Your task to perform on an android device: change alarm snooze length Image 0: 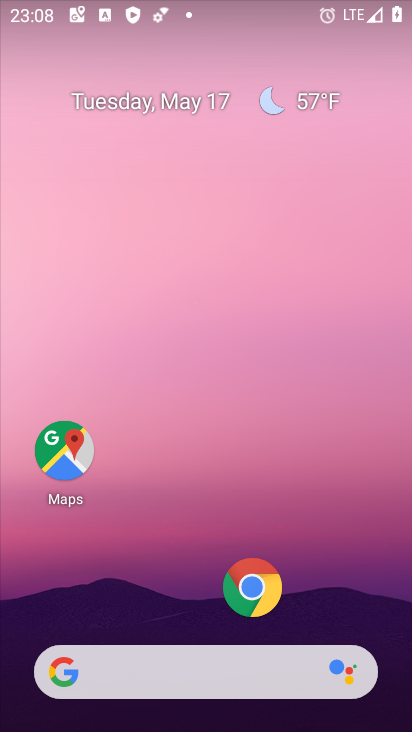
Step 0: drag from (85, 547) to (411, 80)
Your task to perform on an android device: change alarm snooze length Image 1: 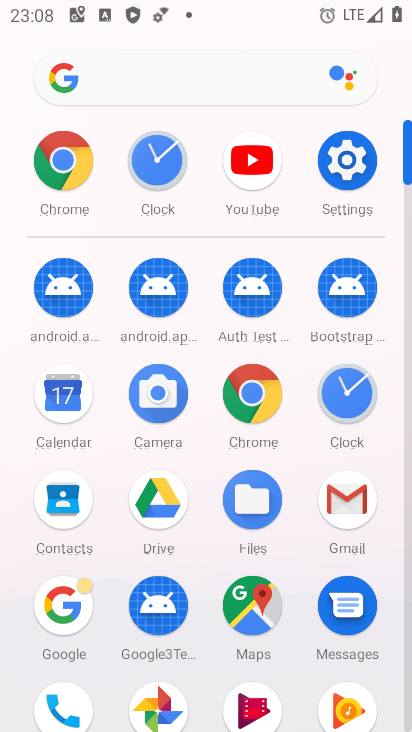
Step 1: click (349, 382)
Your task to perform on an android device: change alarm snooze length Image 2: 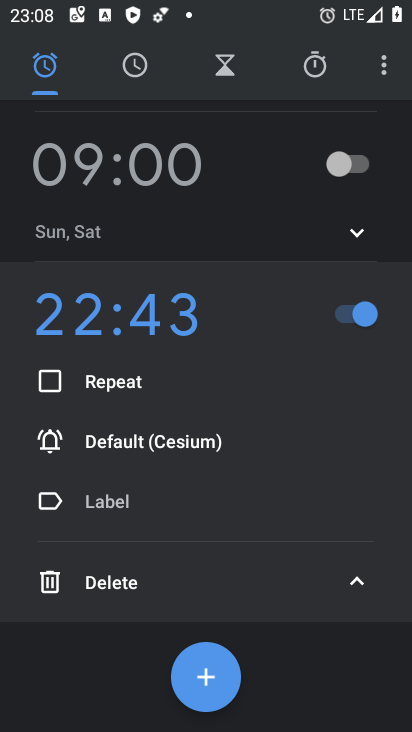
Step 2: click (385, 73)
Your task to perform on an android device: change alarm snooze length Image 3: 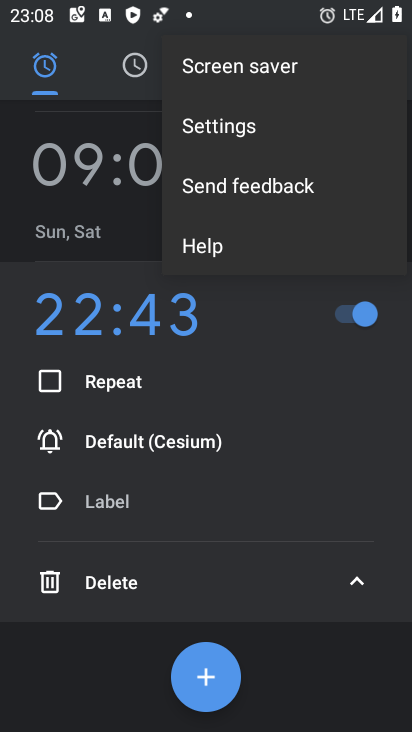
Step 3: click (269, 131)
Your task to perform on an android device: change alarm snooze length Image 4: 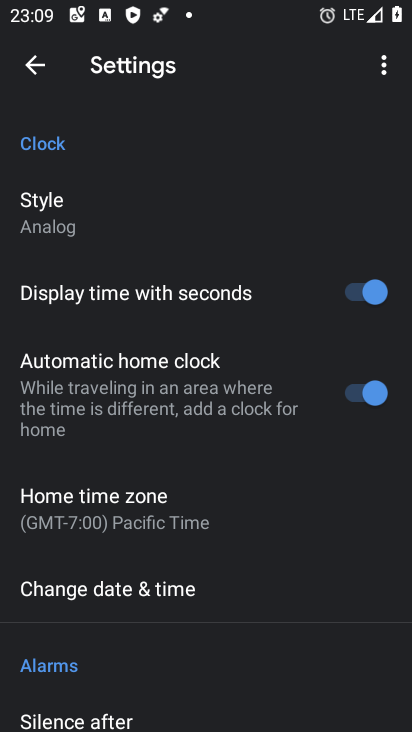
Step 4: drag from (163, 648) to (204, 170)
Your task to perform on an android device: change alarm snooze length Image 5: 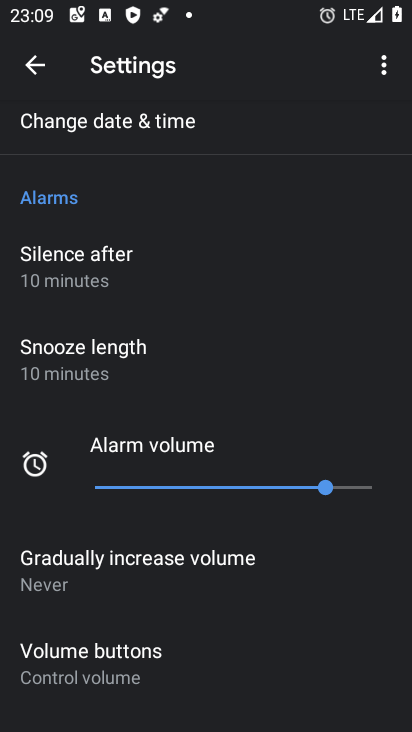
Step 5: click (99, 362)
Your task to perform on an android device: change alarm snooze length Image 6: 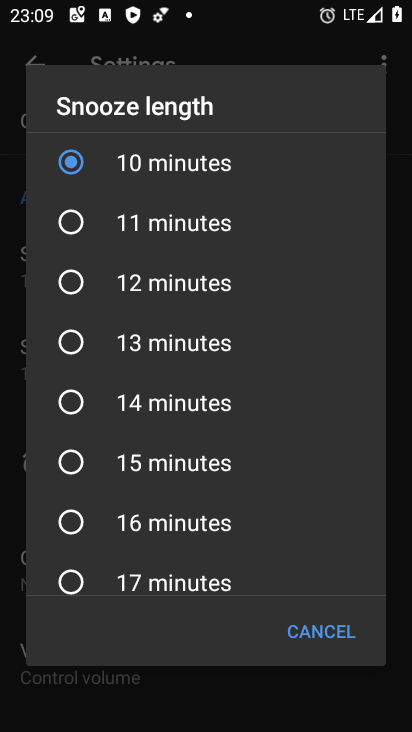
Step 6: click (164, 217)
Your task to perform on an android device: change alarm snooze length Image 7: 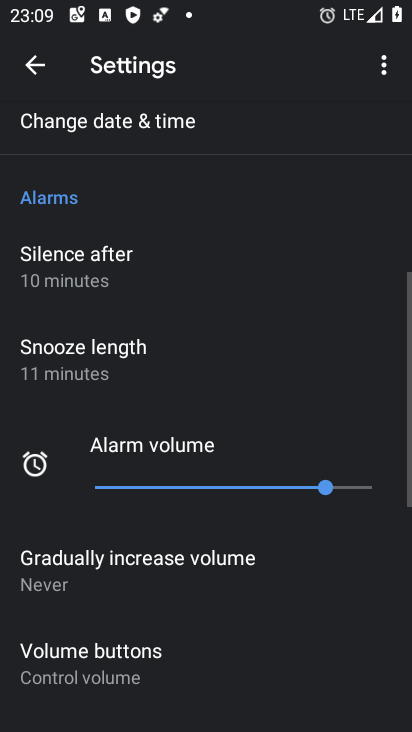
Step 7: task complete